Your task to perform on an android device: Open Yahoo.com Image 0: 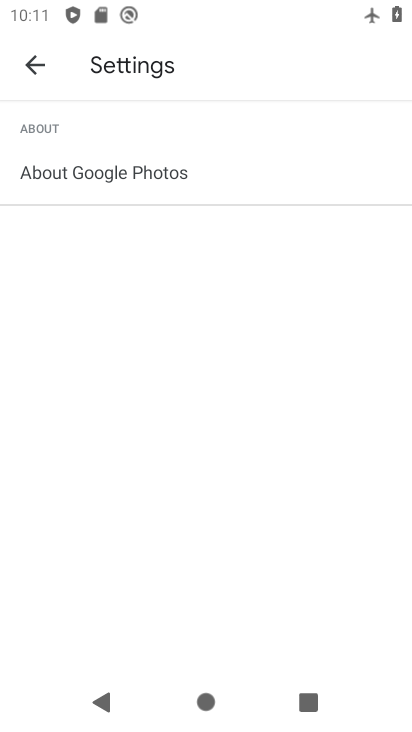
Step 0: press back button
Your task to perform on an android device: Open Yahoo.com Image 1: 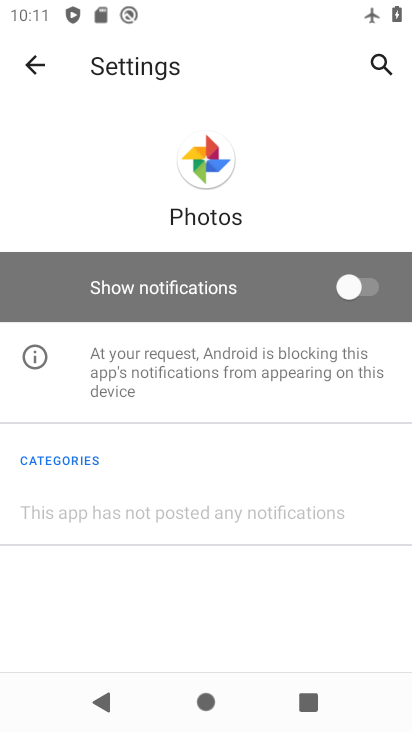
Step 1: press back button
Your task to perform on an android device: Open Yahoo.com Image 2: 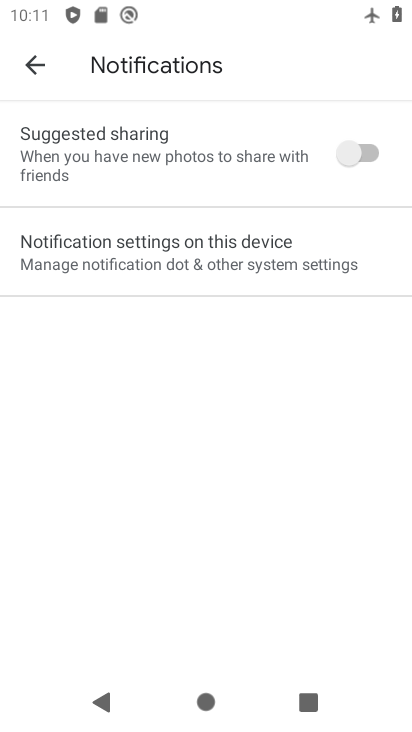
Step 2: press back button
Your task to perform on an android device: Open Yahoo.com Image 3: 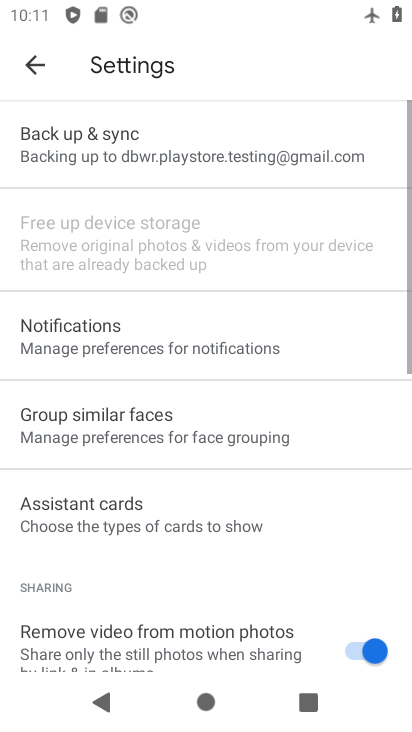
Step 3: press back button
Your task to perform on an android device: Open Yahoo.com Image 4: 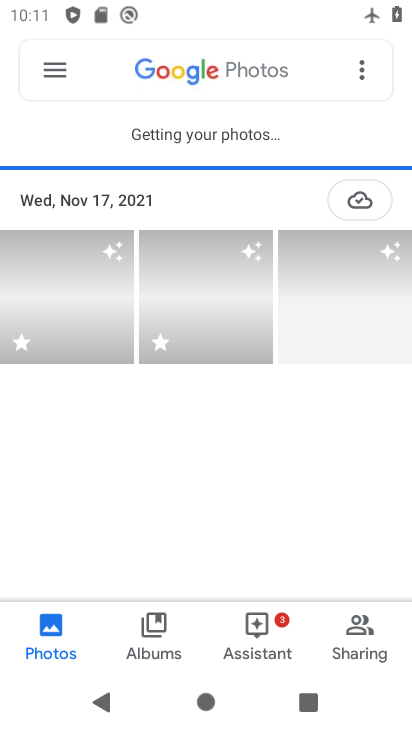
Step 4: press back button
Your task to perform on an android device: Open Yahoo.com Image 5: 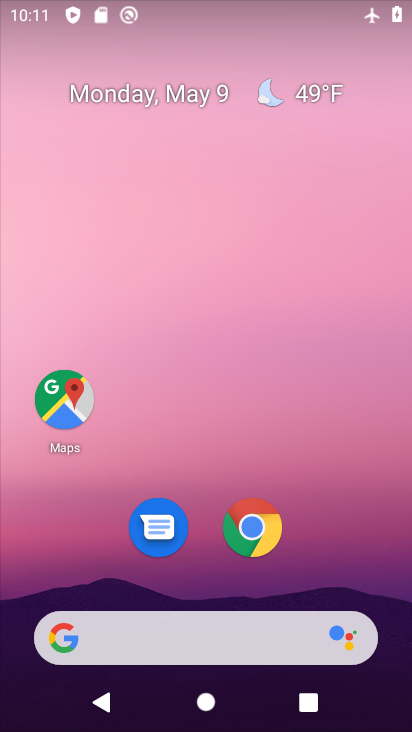
Step 5: click (253, 525)
Your task to perform on an android device: Open Yahoo.com Image 6: 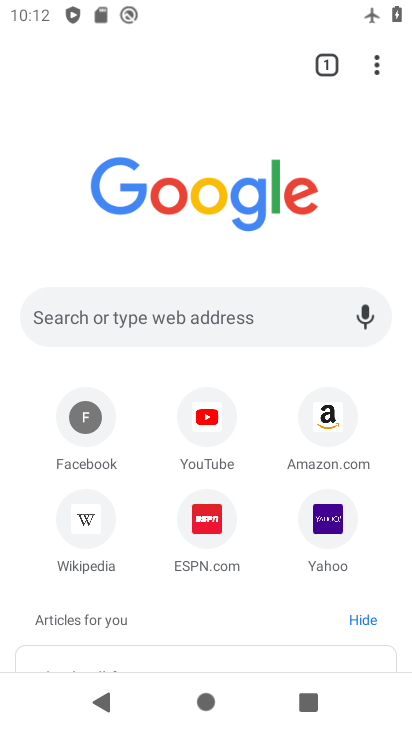
Step 6: click (148, 302)
Your task to perform on an android device: Open Yahoo.com Image 7: 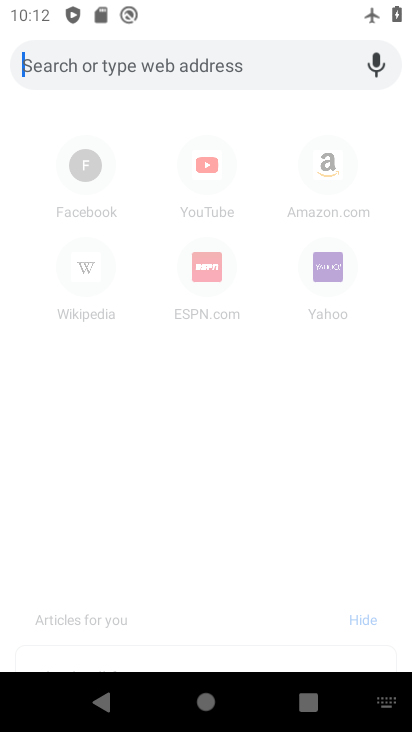
Step 7: type "Yahoo.com"
Your task to perform on an android device: Open Yahoo.com Image 8: 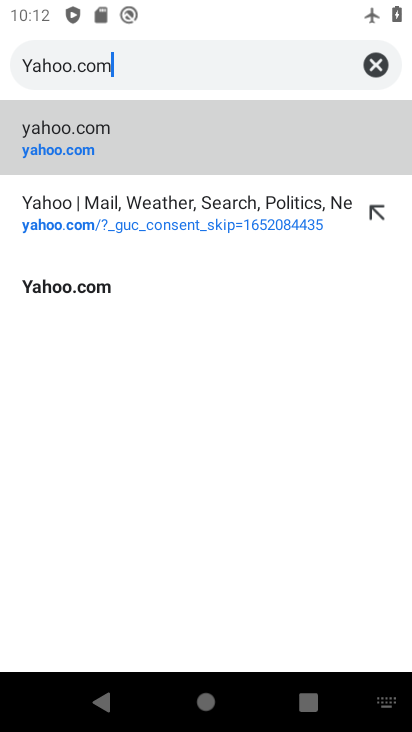
Step 8: type ""
Your task to perform on an android device: Open Yahoo.com Image 9: 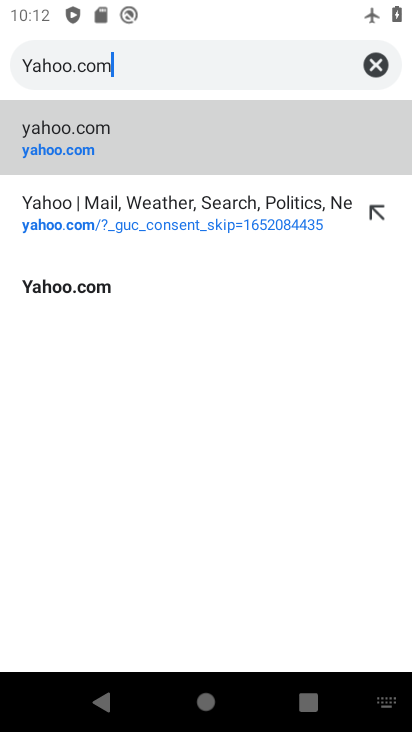
Step 9: click (68, 283)
Your task to perform on an android device: Open Yahoo.com Image 10: 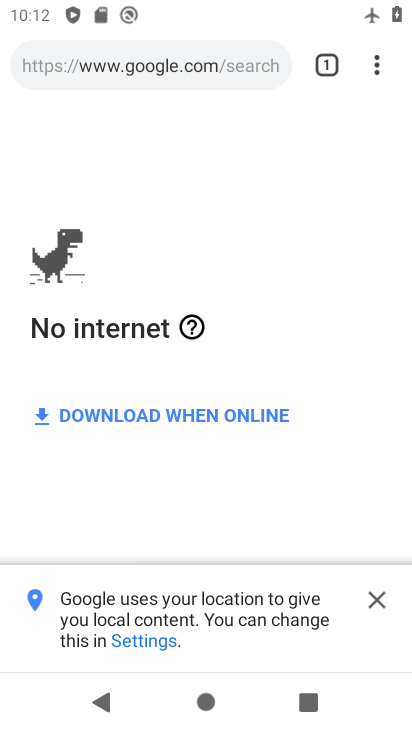
Step 10: click (379, 591)
Your task to perform on an android device: Open Yahoo.com Image 11: 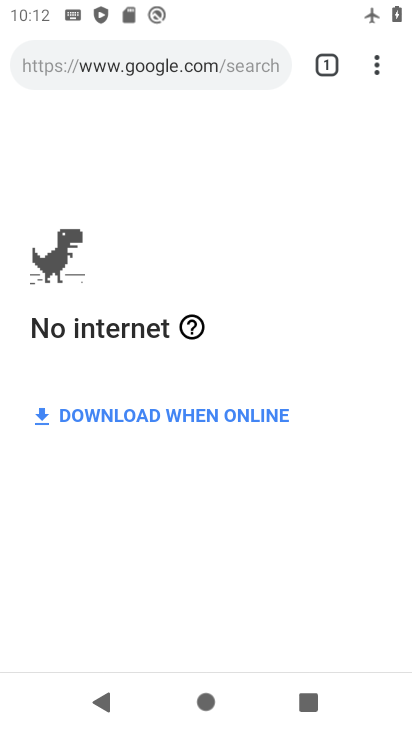
Step 11: task complete